Your task to perform on an android device: Find coffee shops on Maps Image 0: 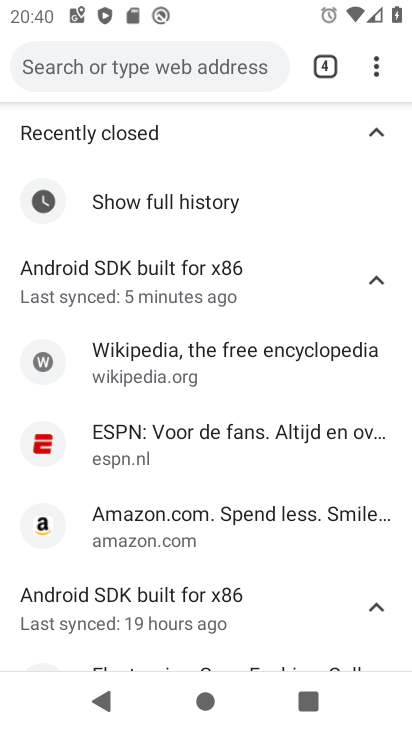
Step 0: press home button
Your task to perform on an android device: Find coffee shops on Maps Image 1: 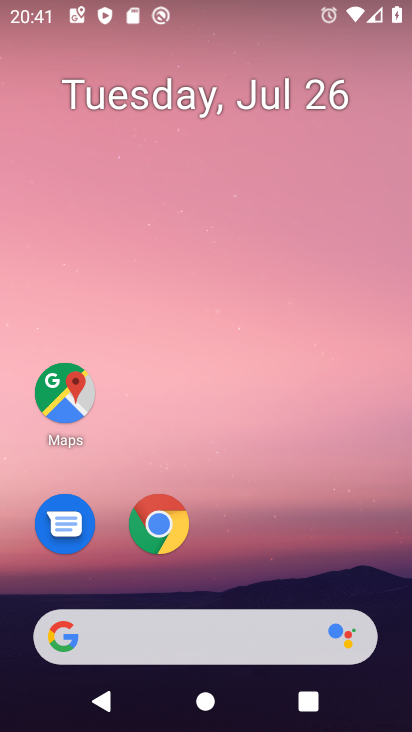
Step 1: click (69, 396)
Your task to perform on an android device: Find coffee shops on Maps Image 2: 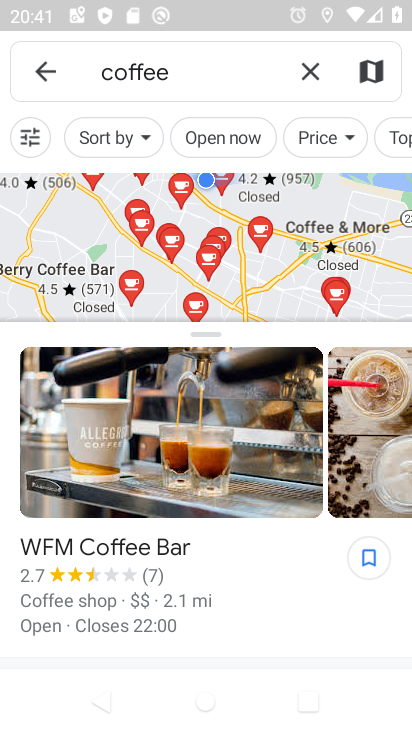
Step 2: task complete